Your task to perform on an android device: Add "macbook air" to the cart on walmart.com, then select checkout. Image 0: 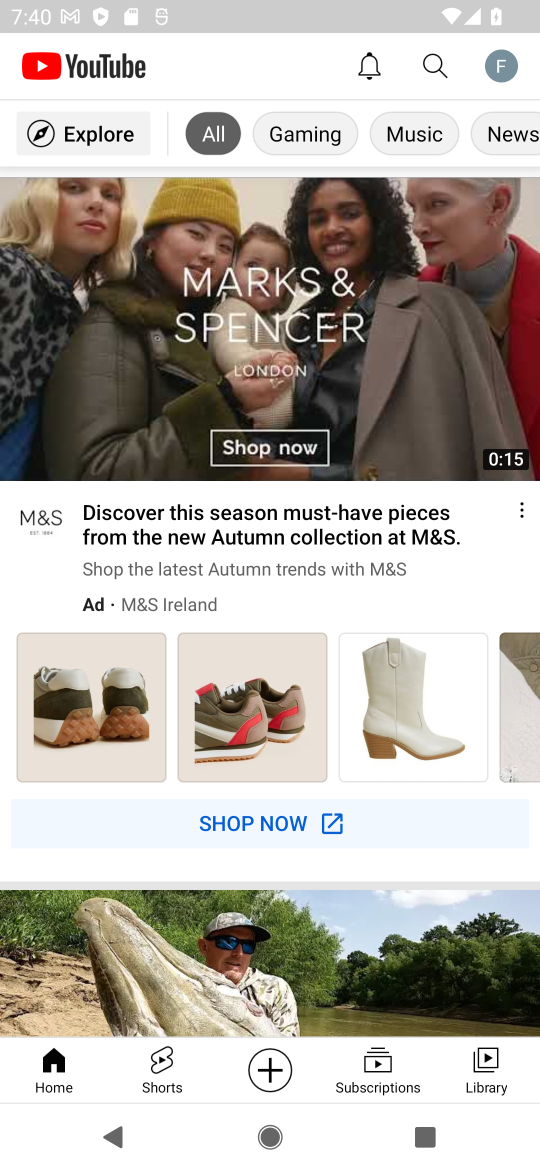
Step 0: press home button
Your task to perform on an android device: Add "macbook air" to the cart on walmart.com, then select checkout. Image 1: 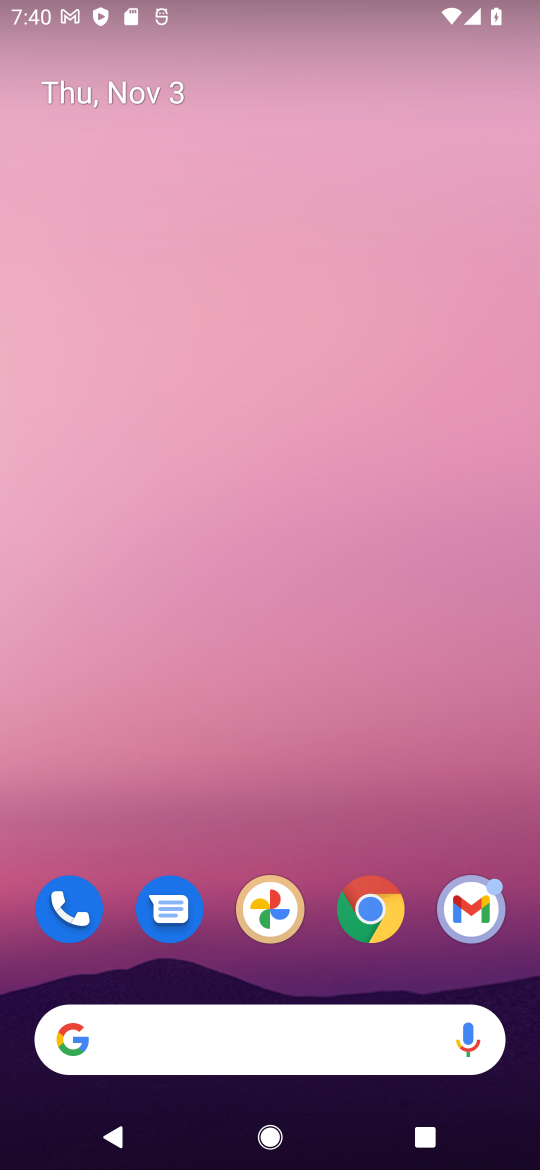
Step 1: drag from (186, 765) to (238, 386)
Your task to perform on an android device: Add "macbook air" to the cart on walmart.com, then select checkout. Image 2: 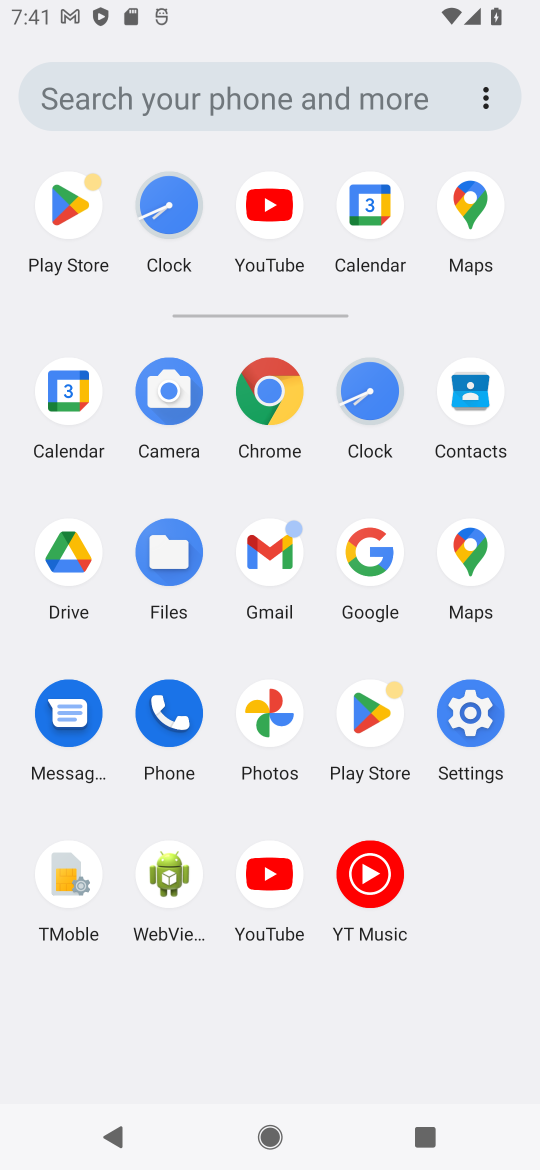
Step 2: click (360, 554)
Your task to perform on an android device: Add "macbook air" to the cart on walmart.com, then select checkout. Image 3: 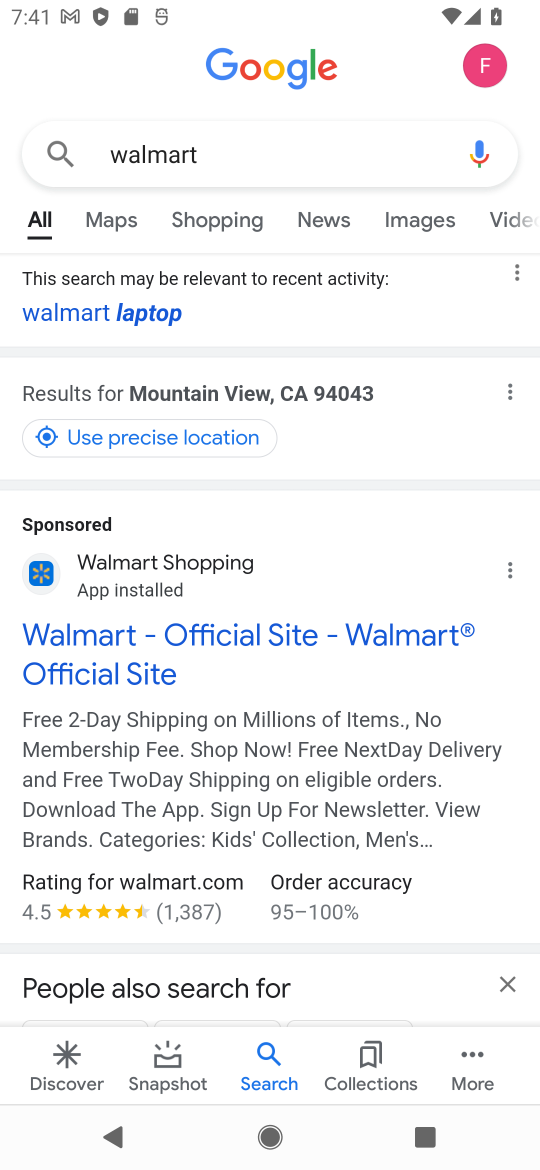
Step 3: click (43, 570)
Your task to perform on an android device: Add "macbook air" to the cart on walmart.com, then select checkout. Image 4: 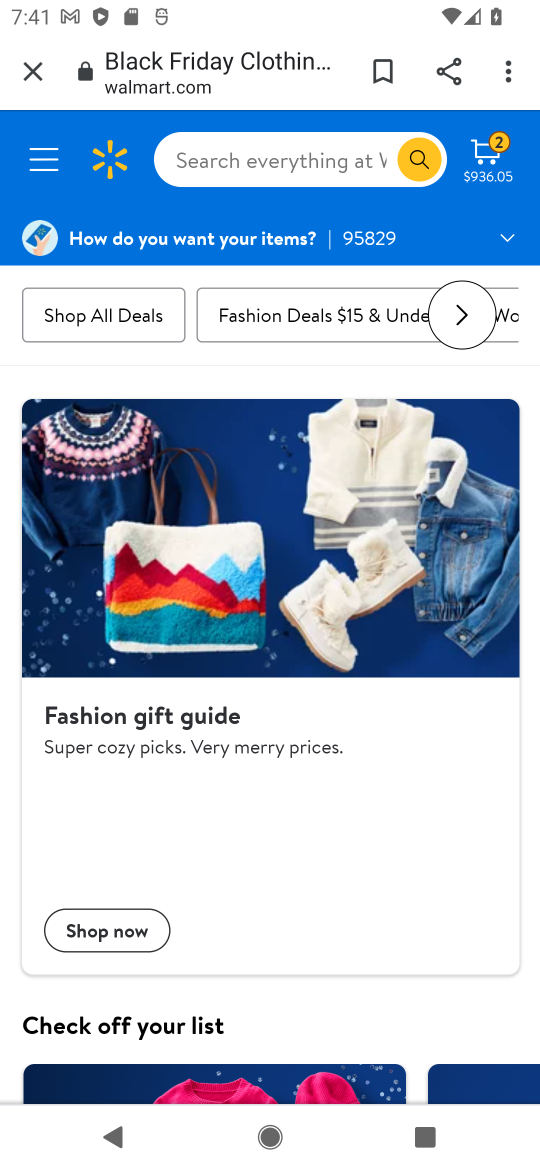
Step 4: click (316, 150)
Your task to perform on an android device: Add "macbook air" to the cart on walmart.com, then select checkout. Image 5: 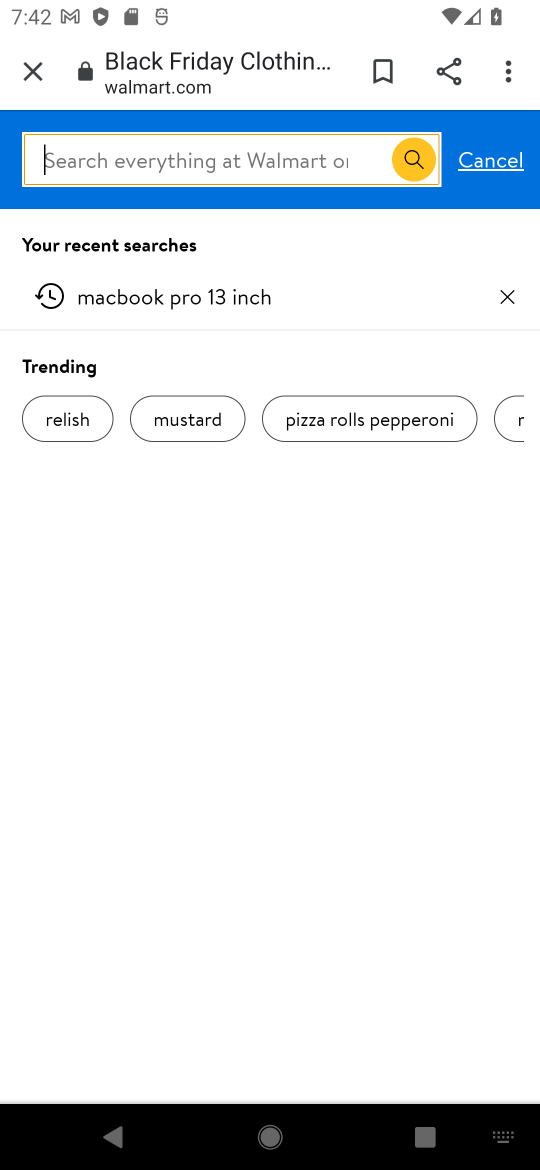
Step 5: click (202, 149)
Your task to perform on an android device: Add "macbook air" to the cart on walmart.com, then select checkout. Image 6: 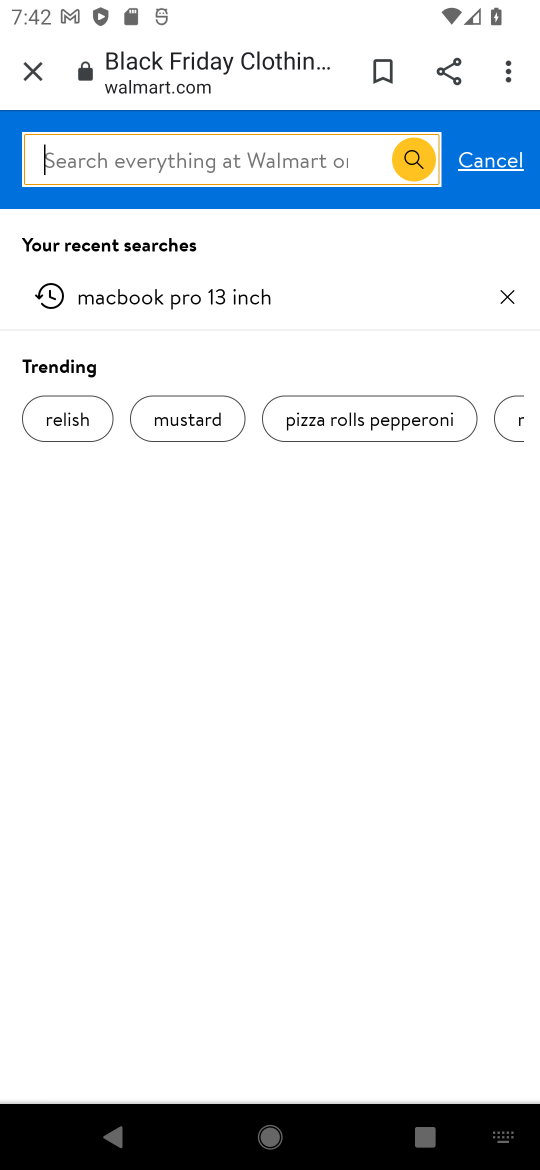
Step 6: type "macbook air"  "
Your task to perform on an android device: Add "macbook air" to the cart on walmart.com, then select checkout. Image 7: 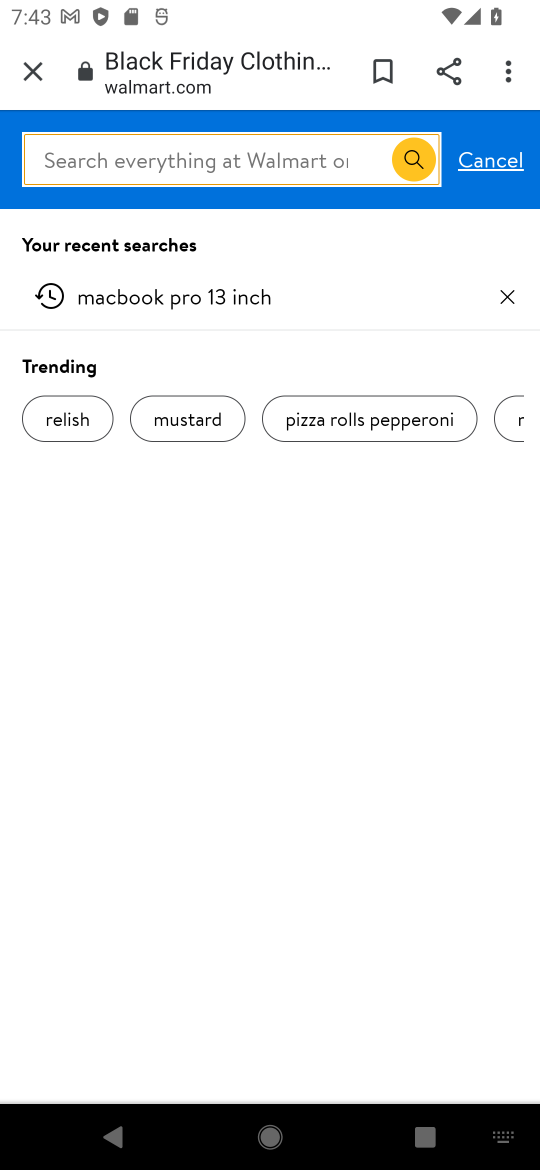
Step 7: click (267, 152)
Your task to perform on an android device: Add "macbook air" to the cart on walmart.com, then select checkout. Image 8: 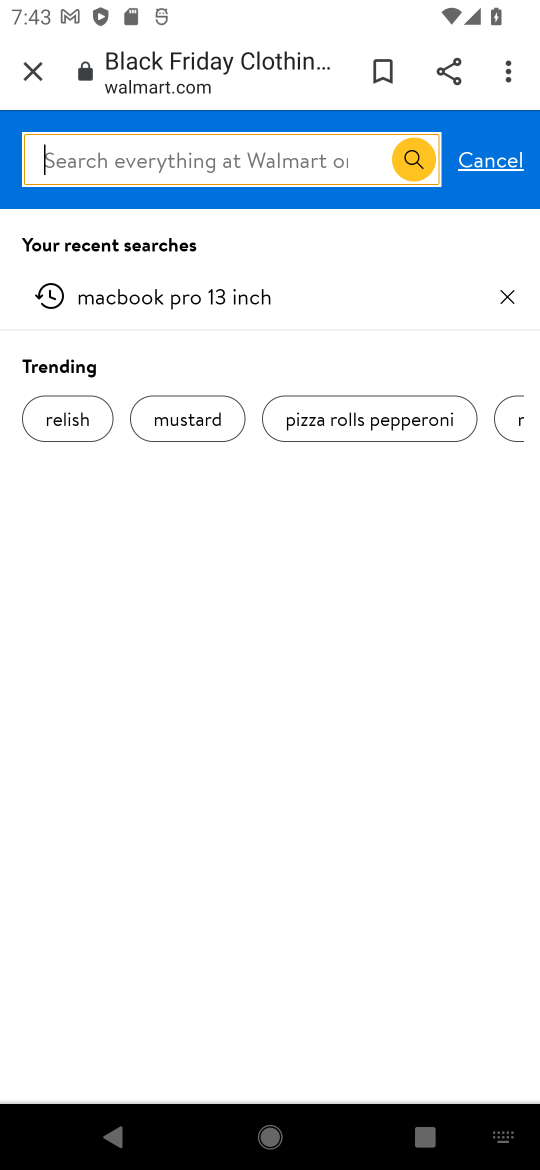
Step 8: type "macbook air "
Your task to perform on an android device: Add "macbook air" to the cart on walmart.com, then select checkout. Image 9: 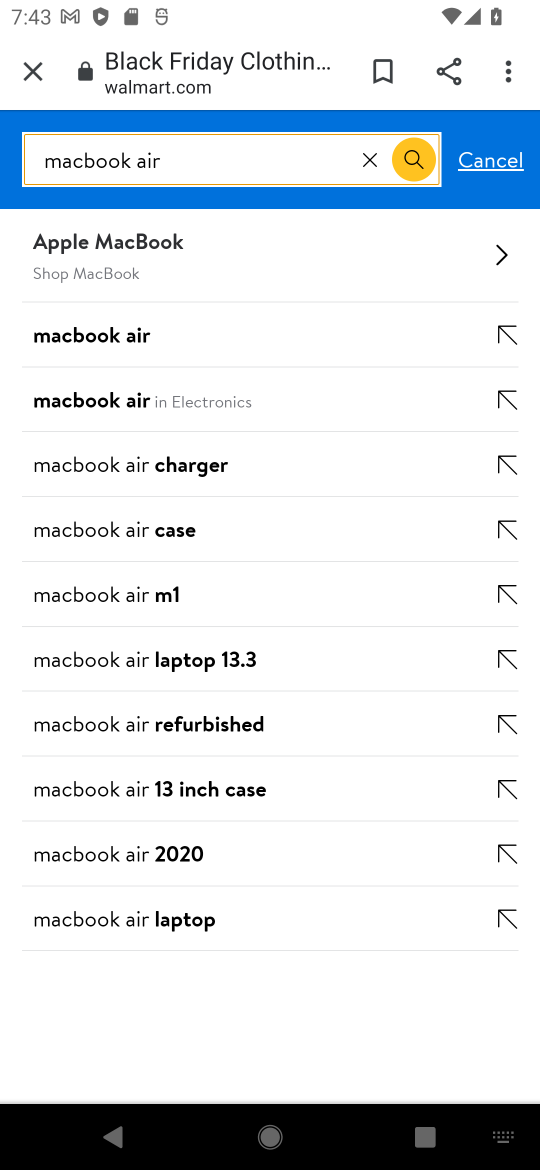
Step 9: click (158, 320)
Your task to perform on an android device: Add "macbook air" to the cart on walmart.com, then select checkout. Image 10: 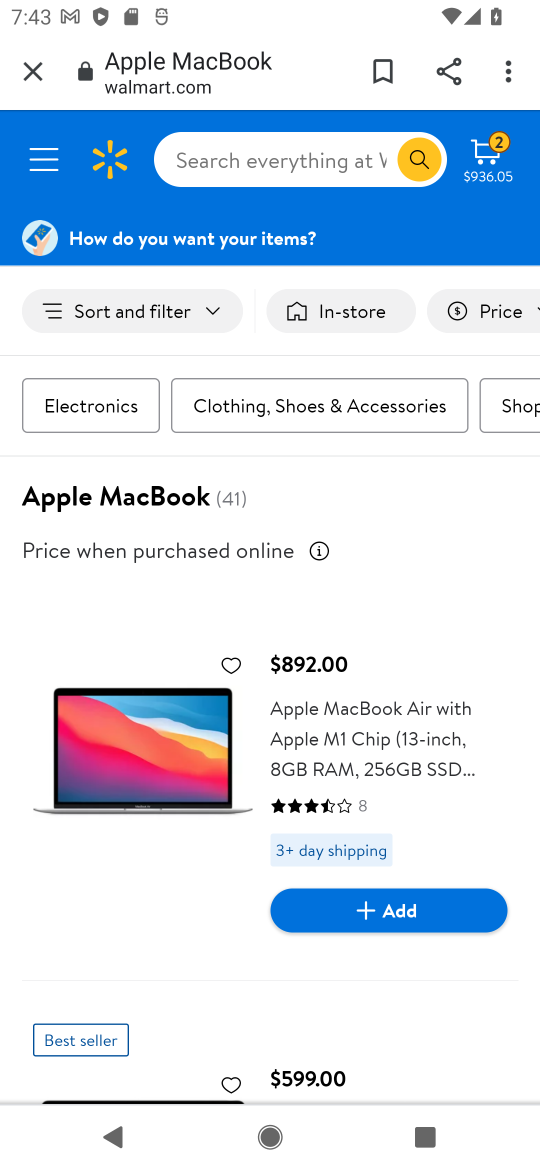
Step 10: click (365, 903)
Your task to perform on an android device: Add "macbook air" to the cart on walmart.com, then select checkout. Image 11: 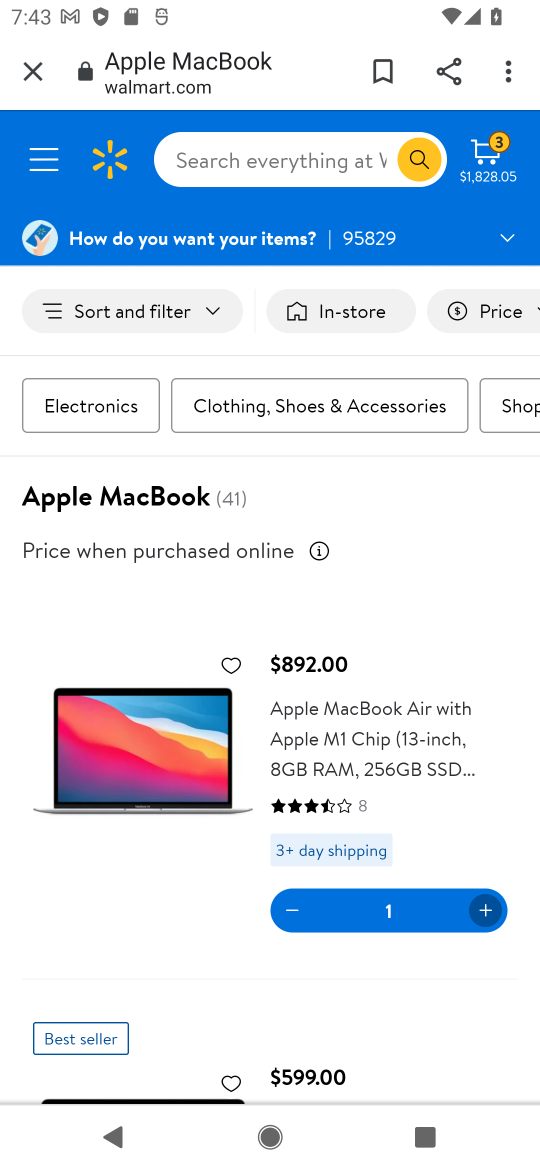
Step 11: task complete